Your task to perform on an android device: Search for seafood restaurants on Google Maps Image 0: 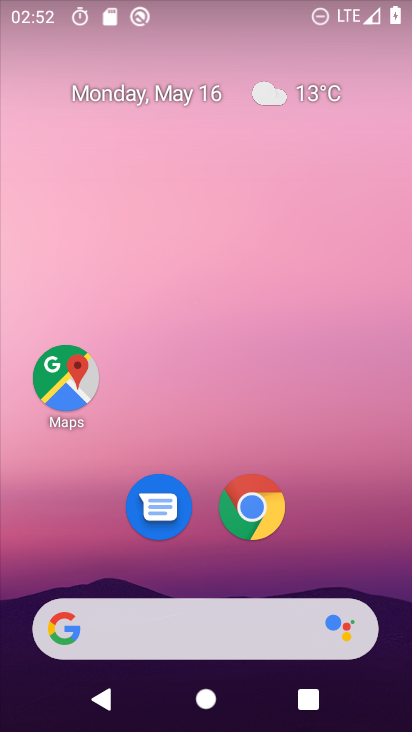
Step 0: click (80, 384)
Your task to perform on an android device: Search for seafood restaurants on Google Maps Image 1: 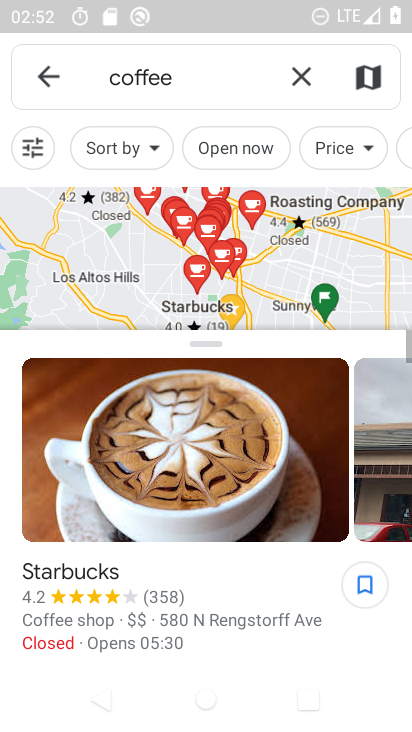
Step 1: click (300, 71)
Your task to perform on an android device: Search for seafood restaurants on Google Maps Image 2: 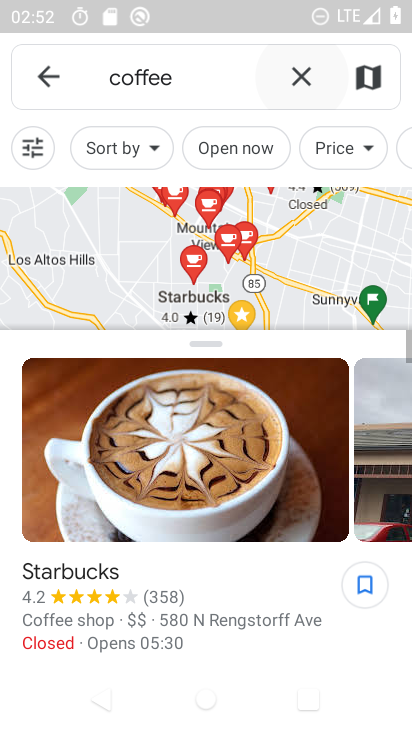
Step 2: click (219, 72)
Your task to perform on an android device: Search for seafood restaurants on Google Maps Image 3: 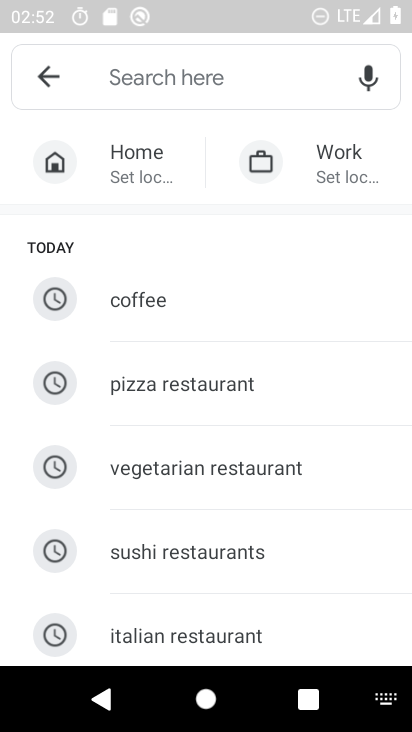
Step 3: drag from (226, 603) to (176, 262)
Your task to perform on an android device: Search for seafood restaurants on Google Maps Image 4: 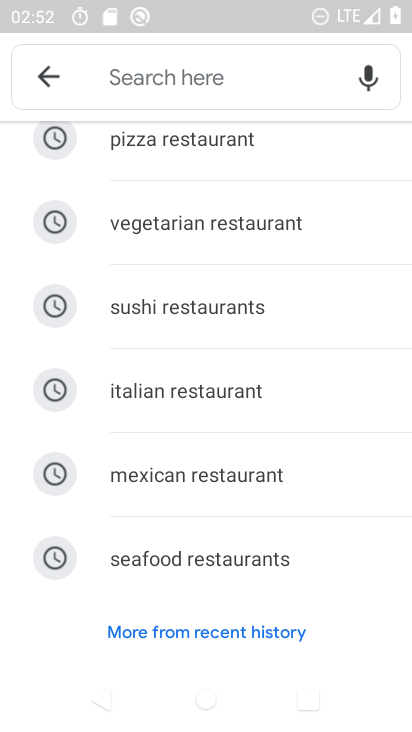
Step 4: click (209, 559)
Your task to perform on an android device: Search for seafood restaurants on Google Maps Image 5: 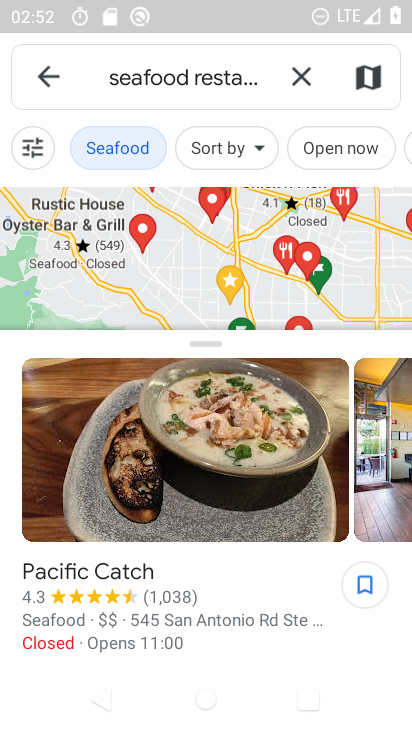
Step 5: task complete